Your task to perform on an android device: open app "Facebook Messenger" (install if not already installed) Image 0: 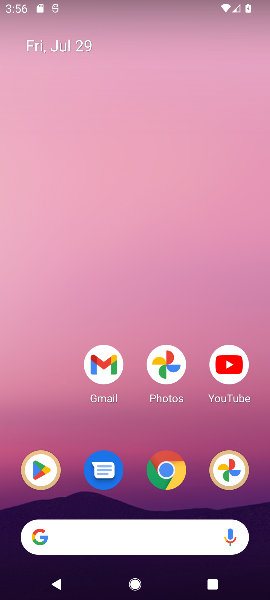
Step 0: click (52, 463)
Your task to perform on an android device: open app "Facebook Messenger" (install if not already installed) Image 1: 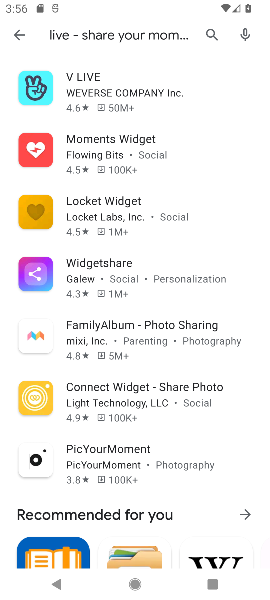
Step 1: click (207, 31)
Your task to perform on an android device: open app "Facebook Messenger" (install if not already installed) Image 2: 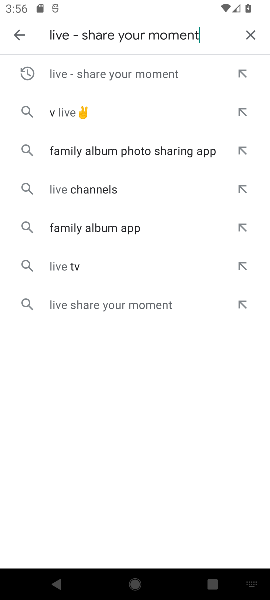
Step 2: click (247, 31)
Your task to perform on an android device: open app "Facebook Messenger" (install if not already installed) Image 3: 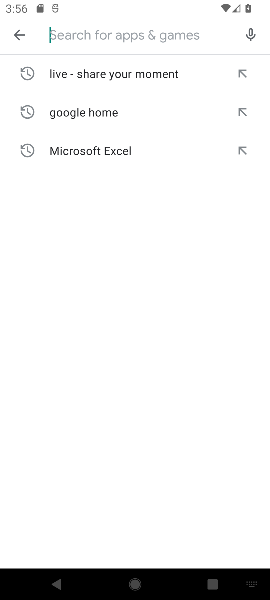
Step 3: type "Facebook Messenger"
Your task to perform on an android device: open app "Facebook Messenger" (install if not already installed) Image 4: 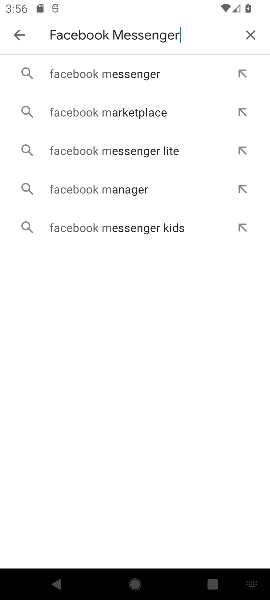
Step 4: type ""
Your task to perform on an android device: open app "Facebook Messenger" (install if not already installed) Image 5: 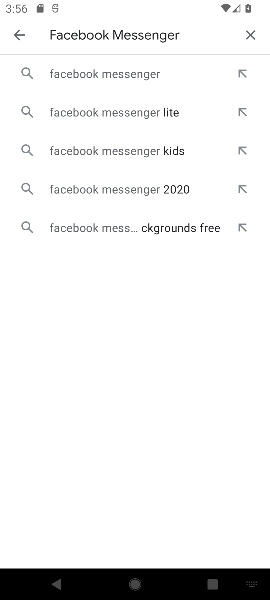
Step 5: click (92, 74)
Your task to perform on an android device: open app "Facebook Messenger" (install if not already installed) Image 6: 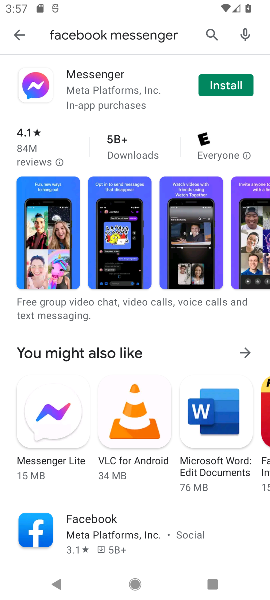
Step 6: click (230, 88)
Your task to perform on an android device: open app "Facebook Messenger" (install if not already installed) Image 7: 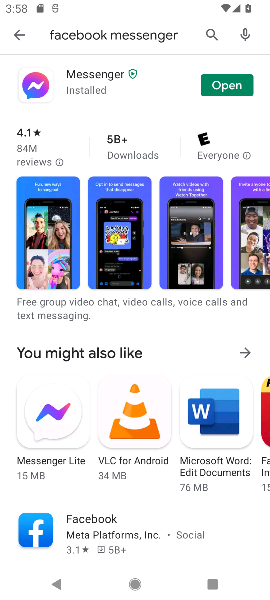
Step 7: click (247, 89)
Your task to perform on an android device: open app "Facebook Messenger" (install if not already installed) Image 8: 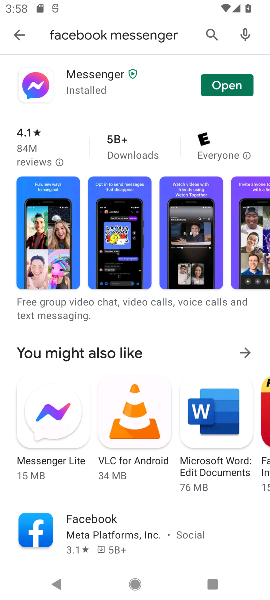
Step 8: task complete